Your task to perform on an android device: What is the news today? Image 0: 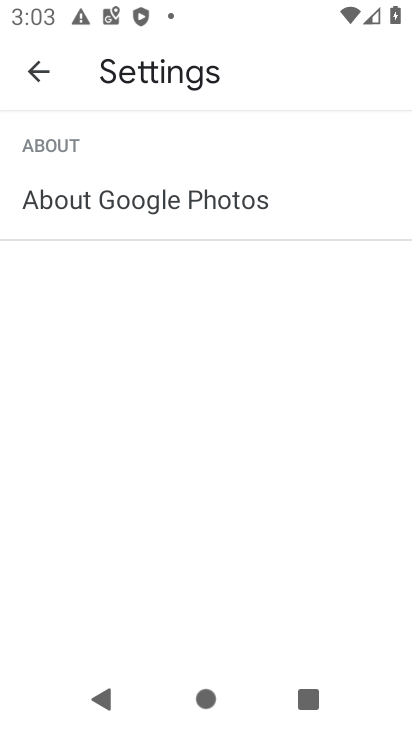
Step 0: press home button
Your task to perform on an android device: What is the news today? Image 1: 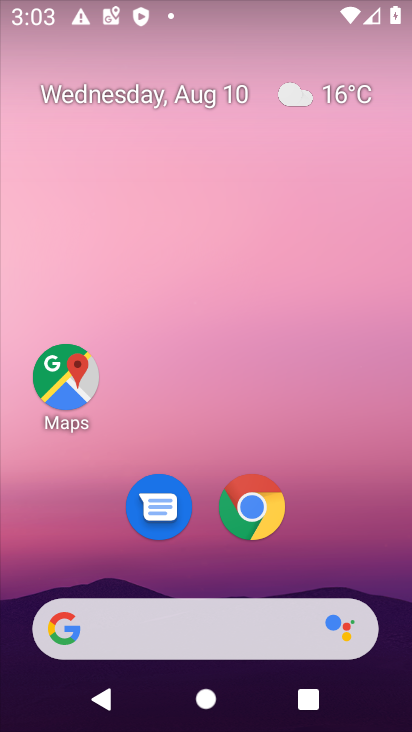
Step 1: drag from (333, 508) to (370, 13)
Your task to perform on an android device: What is the news today? Image 2: 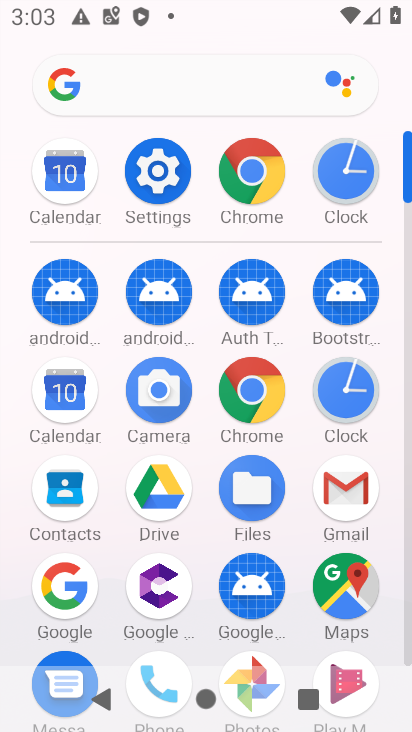
Step 2: click (240, 382)
Your task to perform on an android device: What is the news today? Image 3: 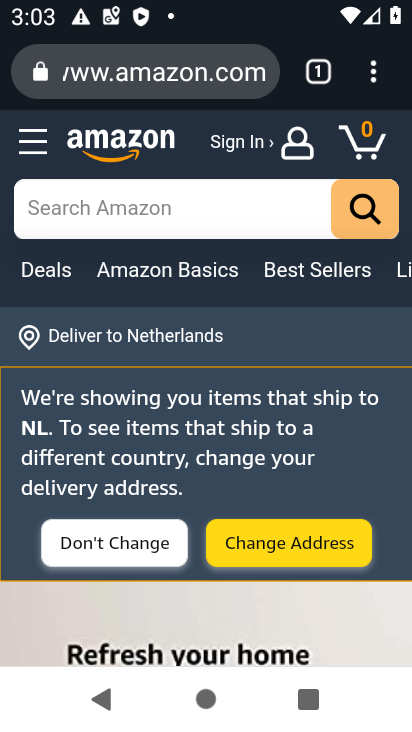
Step 3: click (178, 83)
Your task to perform on an android device: What is the news today? Image 4: 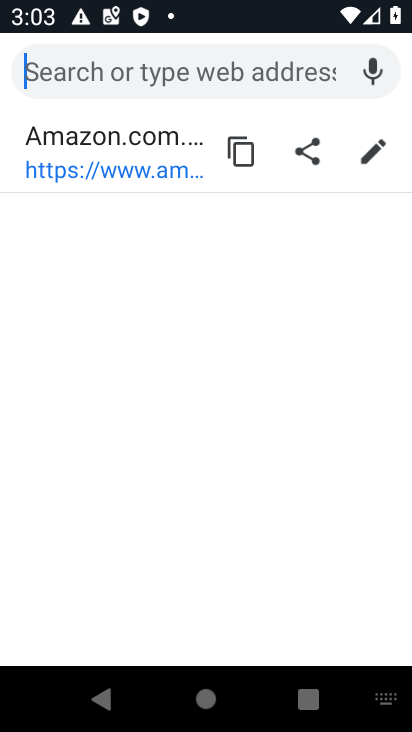
Step 4: type "news"
Your task to perform on an android device: What is the news today? Image 5: 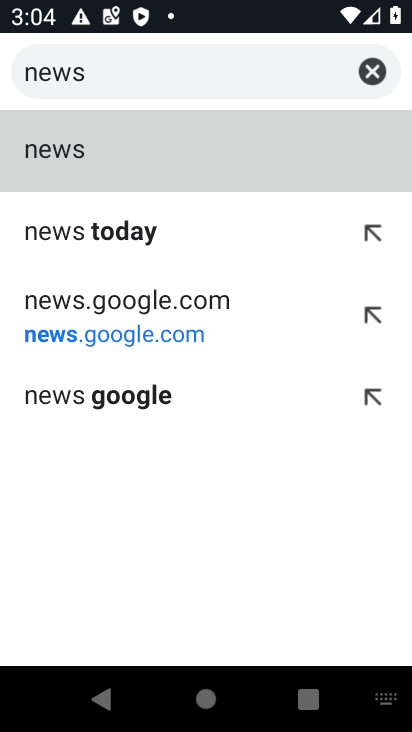
Step 5: click (59, 336)
Your task to perform on an android device: What is the news today? Image 6: 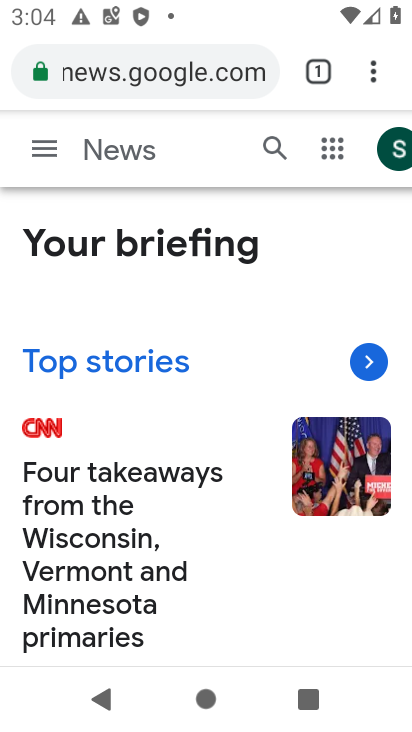
Step 6: task complete